Your task to perform on an android device: Is it going to rain tomorrow? Image 0: 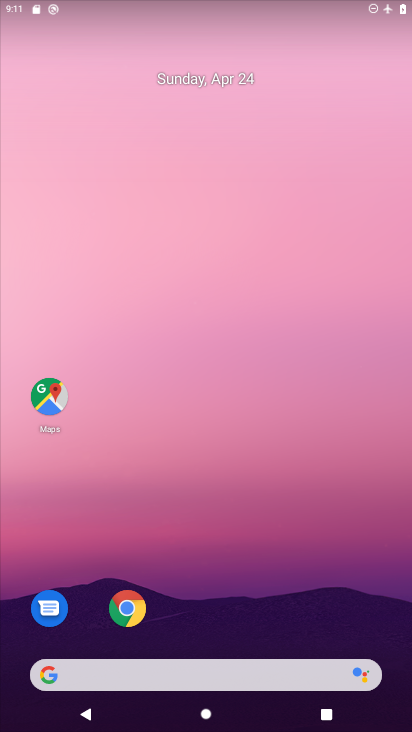
Step 0: drag from (216, 615) to (194, 152)
Your task to perform on an android device: Is it going to rain tomorrow? Image 1: 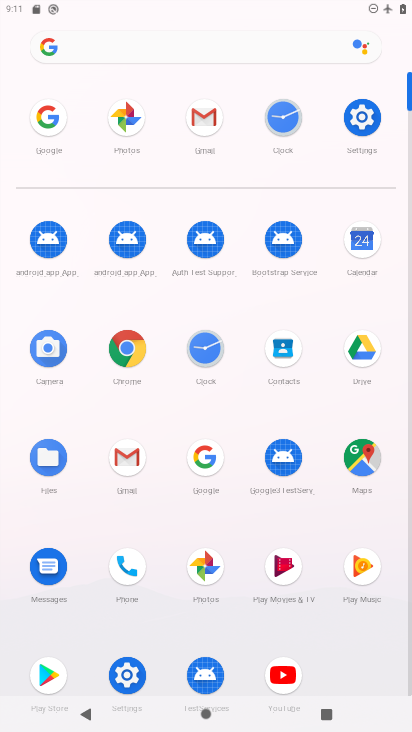
Step 1: click (195, 445)
Your task to perform on an android device: Is it going to rain tomorrow? Image 2: 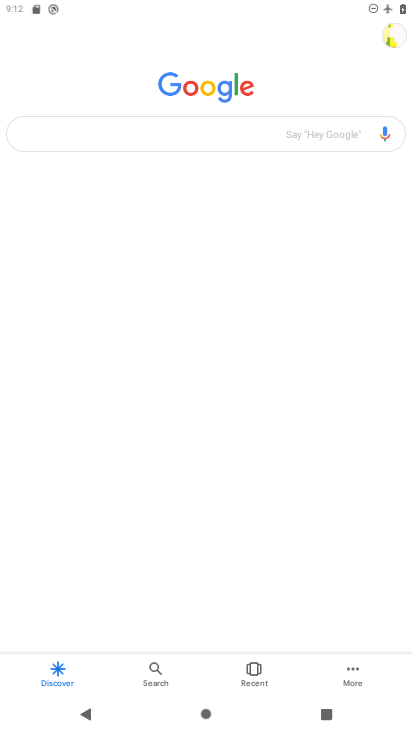
Step 2: task complete